Your task to perform on an android device: turn notification dots off Image 0: 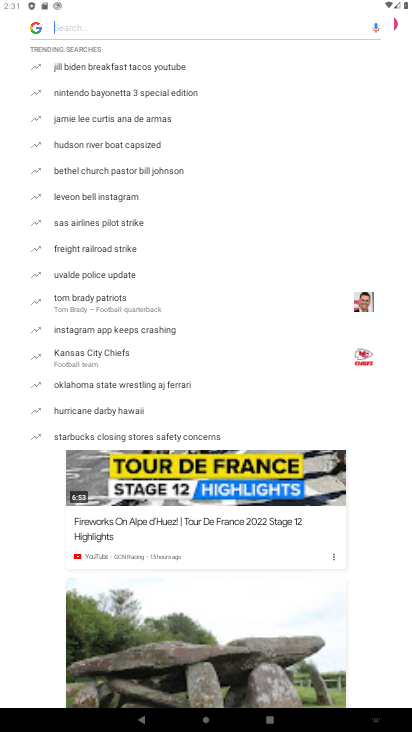
Step 0: press back button
Your task to perform on an android device: turn notification dots off Image 1: 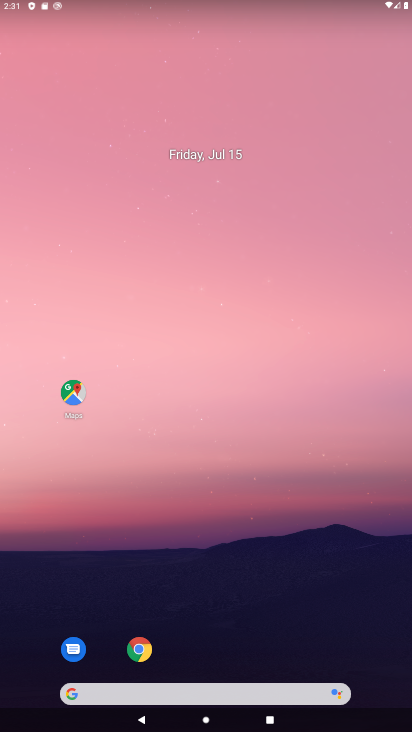
Step 1: drag from (290, 638) to (245, 110)
Your task to perform on an android device: turn notification dots off Image 2: 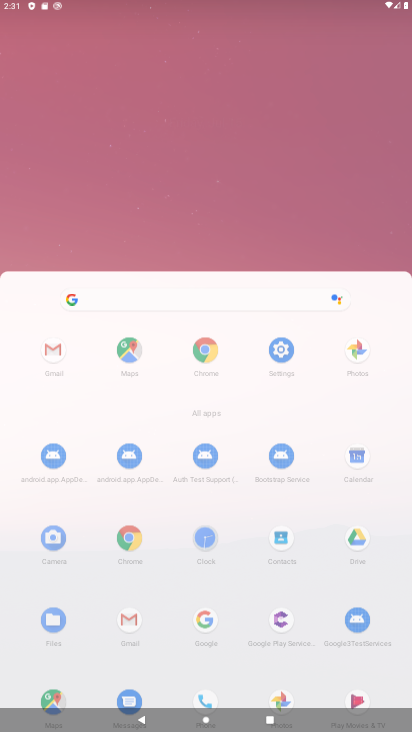
Step 2: drag from (180, 552) to (192, 33)
Your task to perform on an android device: turn notification dots off Image 3: 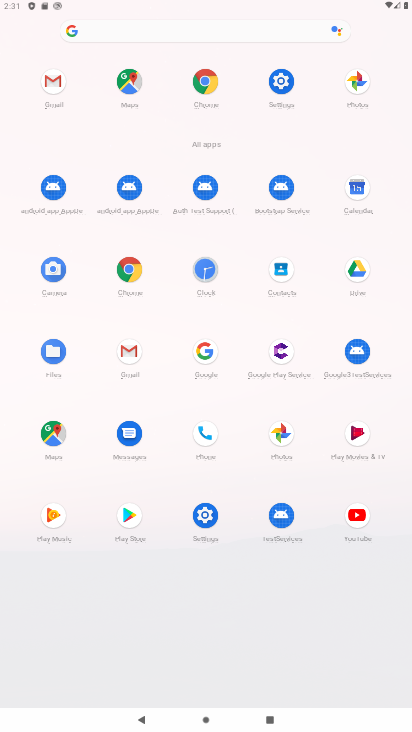
Step 3: click (204, 501)
Your task to perform on an android device: turn notification dots off Image 4: 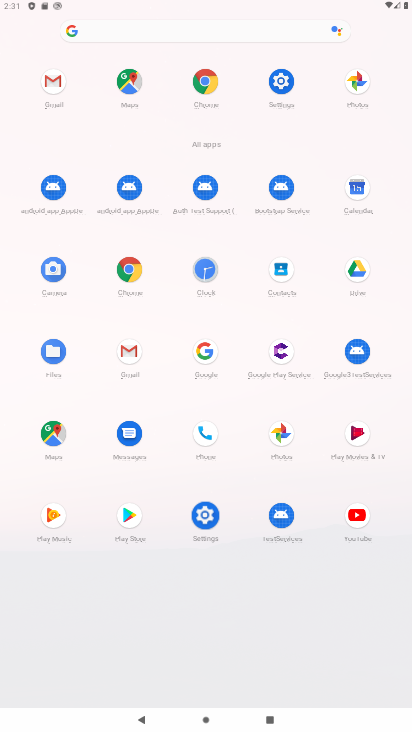
Step 4: click (204, 501)
Your task to perform on an android device: turn notification dots off Image 5: 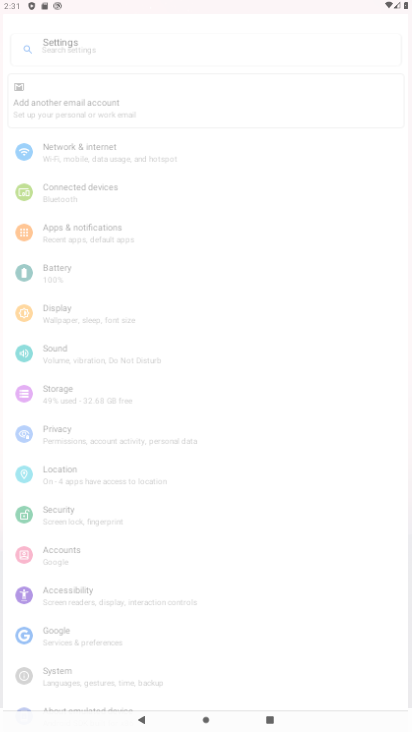
Step 5: click (205, 502)
Your task to perform on an android device: turn notification dots off Image 6: 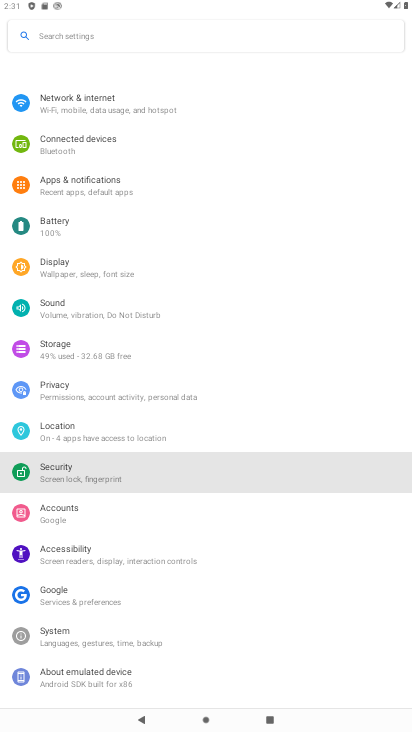
Step 6: click (205, 502)
Your task to perform on an android device: turn notification dots off Image 7: 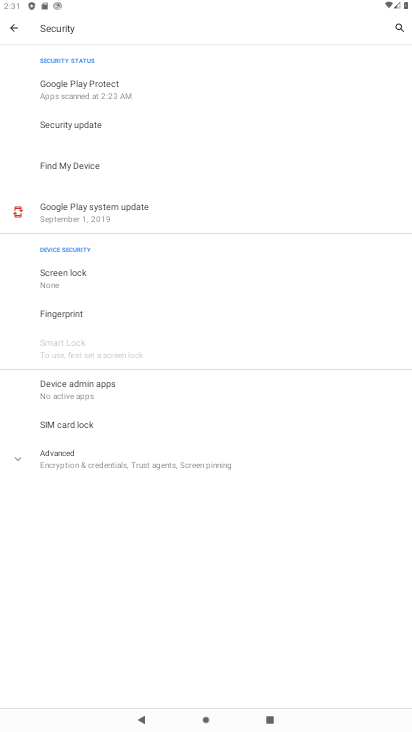
Step 7: click (10, 27)
Your task to perform on an android device: turn notification dots off Image 8: 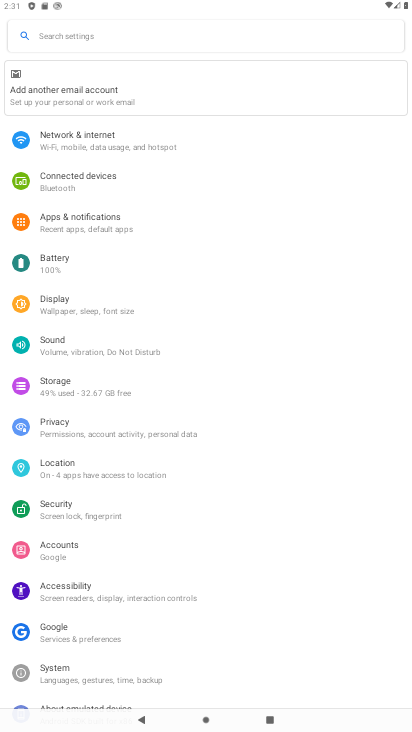
Step 8: click (92, 220)
Your task to perform on an android device: turn notification dots off Image 9: 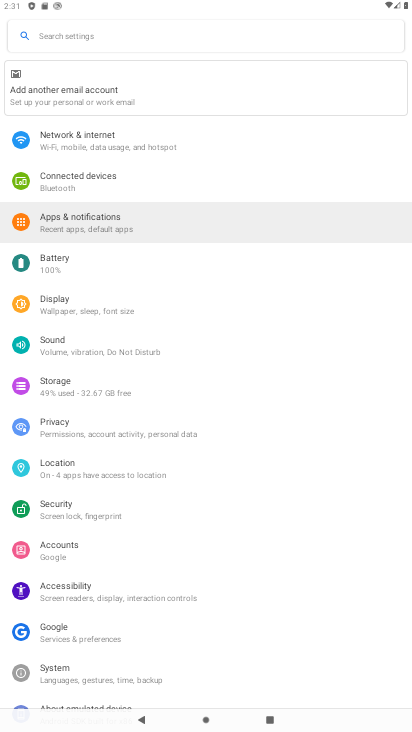
Step 9: click (92, 222)
Your task to perform on an android device: turn notification dots off Image 10: 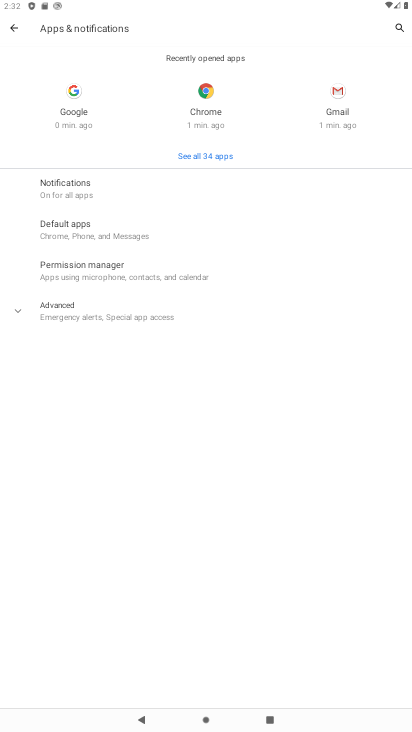
Step 10: press home button
Your task to perform on an android device: turn notification dots off Image 11: 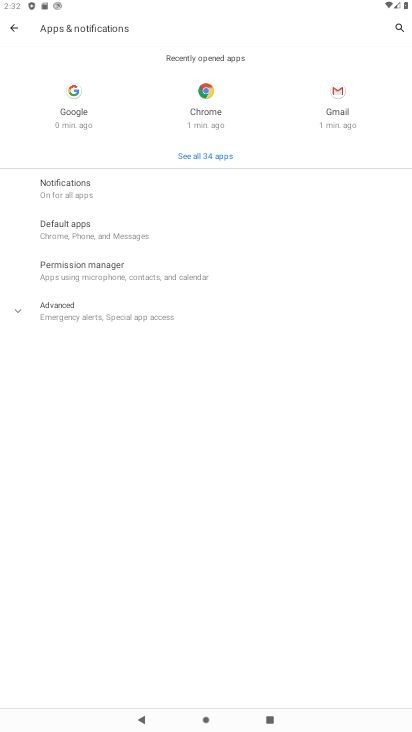
Step 11: press home button
Your task to perform on an android device: turn notification dots off Image 12: 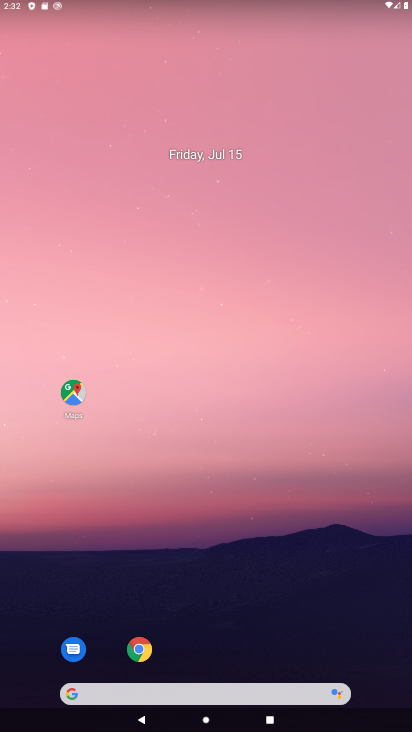
Step 12: drag from (232, 564) to (257, 168)
Your task to perform on an android device: turn notification dots off Image 13: 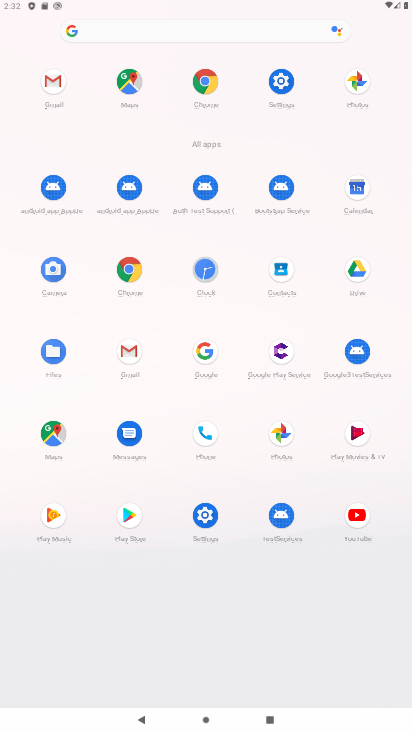
Step 13: click (276, 86)
Your task to perform on an android device: turn notification dots off Image 14: 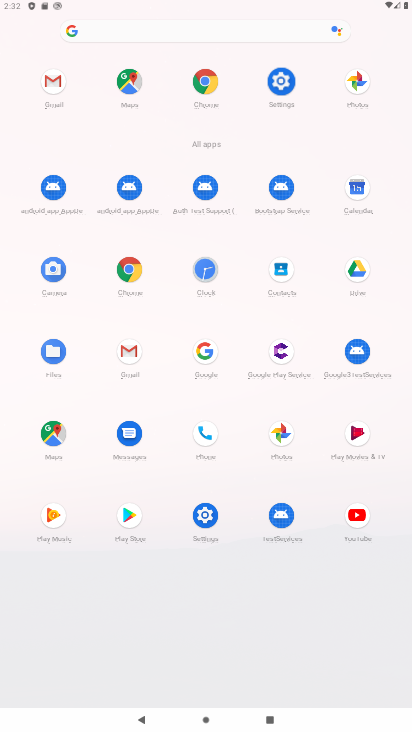
Step 14: click (277, 87)
Your task to perform on an android device: turn notification dots off Image 15: 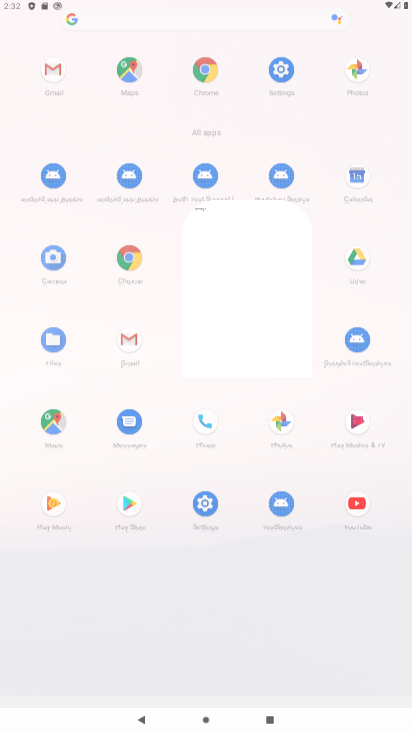
Step 15: click (277, 87)
Your task to perform on an android device: turn notification dots off Image 16: 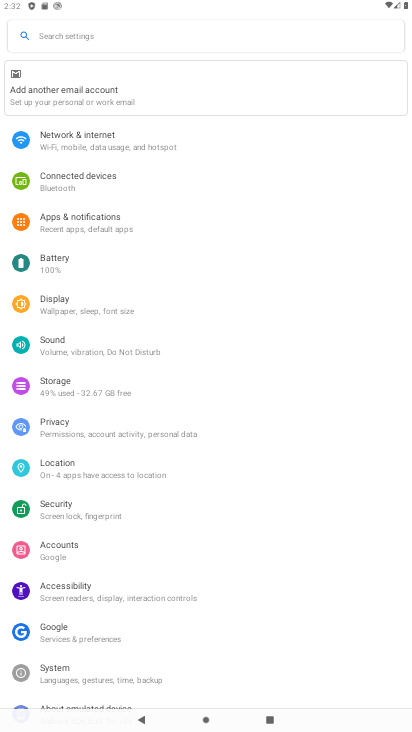
Step 16: click (92, 223)
Your task to perform on an android device: turn notification dots off Image 17: 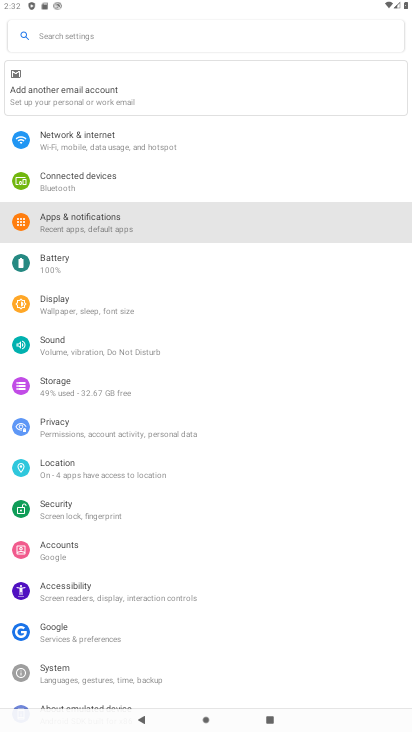
Step 17: click (92, 223)
Your task to perform on an android device: turn notification dots off Image 18: 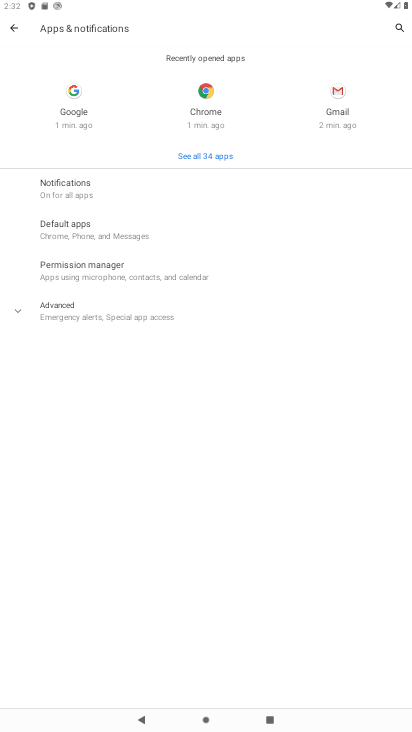
Step 18: click (79, 197)
Your task to perform on an android device: turn notification dots off Image 19: 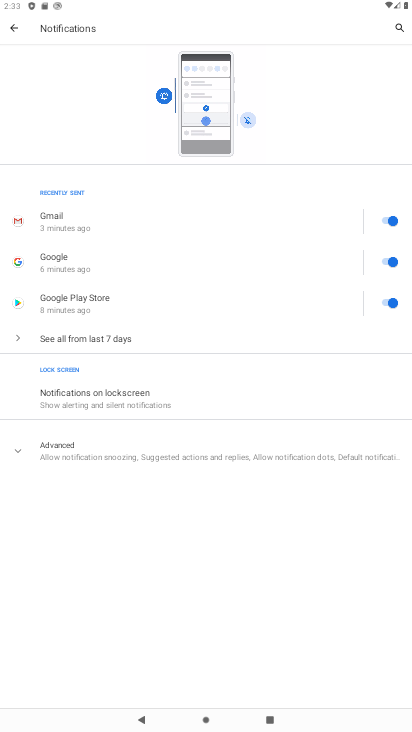
Step 19: click (102, 403)
Your task to perform on an android device: turn notification dots off Image 20: 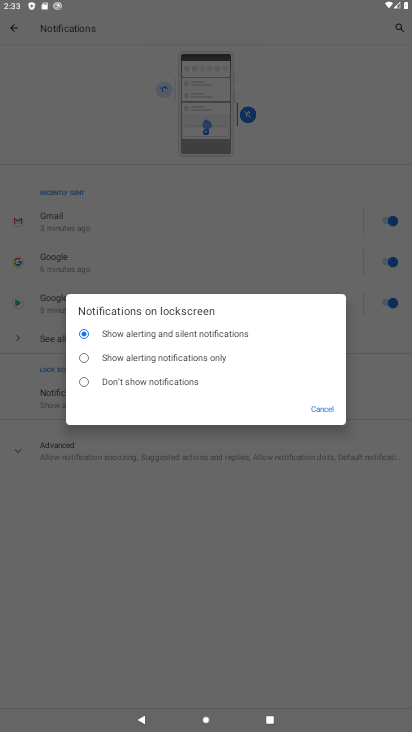
Step 20: click (311, 409)
Your task to perform on an android device: turn notification dots off Image 21: 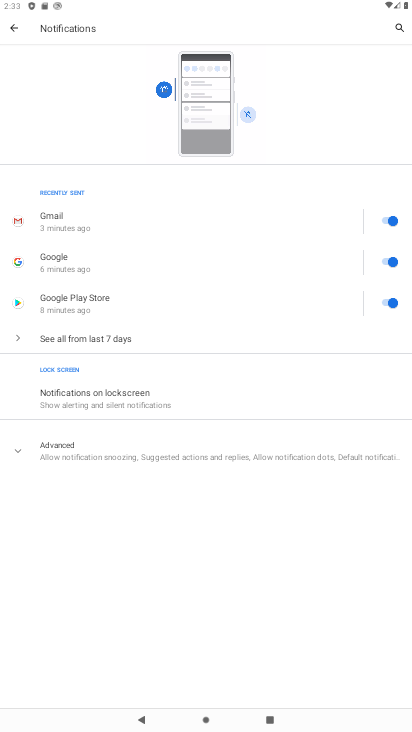
Step 21: drag from (214, 414) to (178, 158)
Your task to perform on an android device: turn notification dots off Image 22: 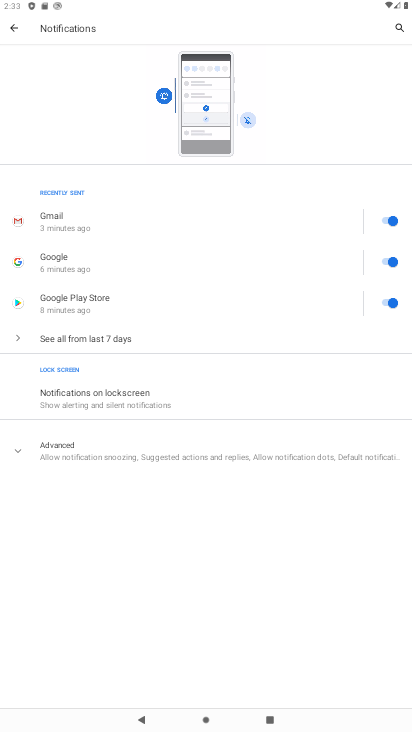
Step 22: click (77, 455)
Your task to perform on an android device: turn notification dots off Image 23: 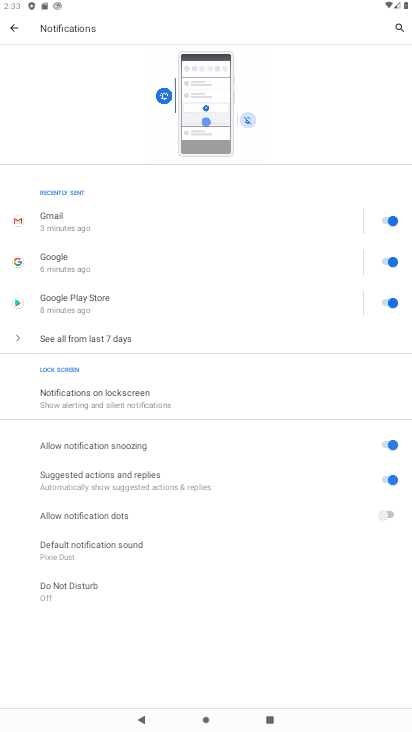
Step 23: click (76, 454)
Your task to perform on an android device: turn notification dots off Image 24: 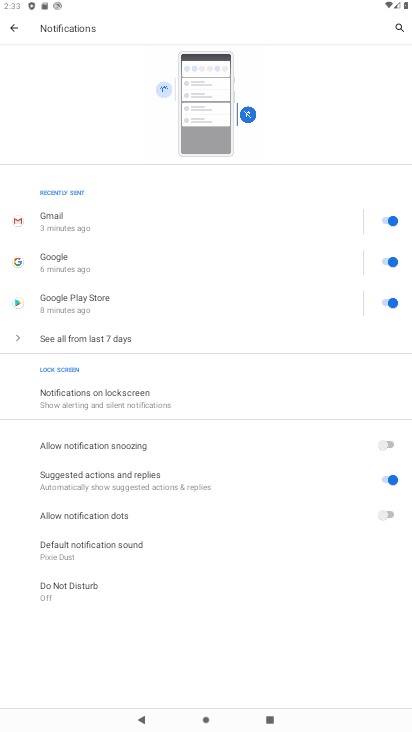
Step 24: task complete